Your task to perform on an android device: uninstall "Spotify: Music and Podcasts" Image 0: 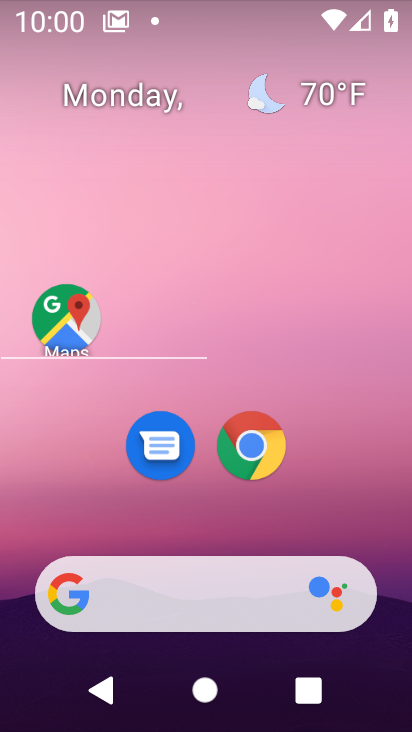
Step 0: press home button
Your task to perform on an android device: uninstall "Spotify: Music and Podcasts" Image 1: 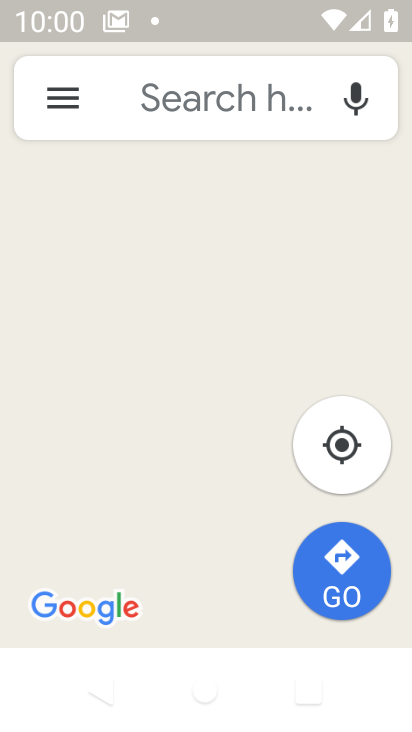
Step 1: drag from (251, 472) to (294, 53)
Your task to perform on an android device: uninstall "Spotify: Music and Podcasts" Image 2: 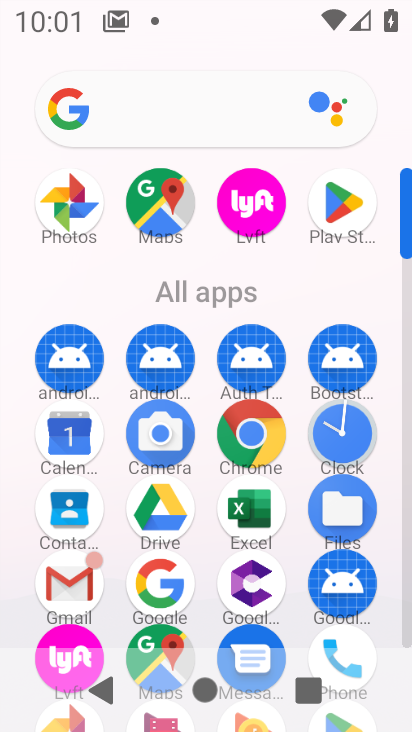
Step 2: click (332, 233)
Your task to perform on an android device: uninstall "Spotify: Music and Podcasts" Image 3: 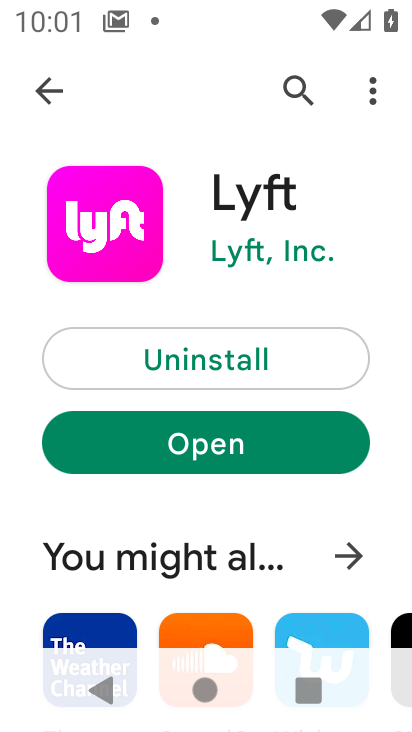
Step 3: click (41, 93)
Your task to perform on an android device: uninstall "Spotify: Music and Podcasts" Image 4: 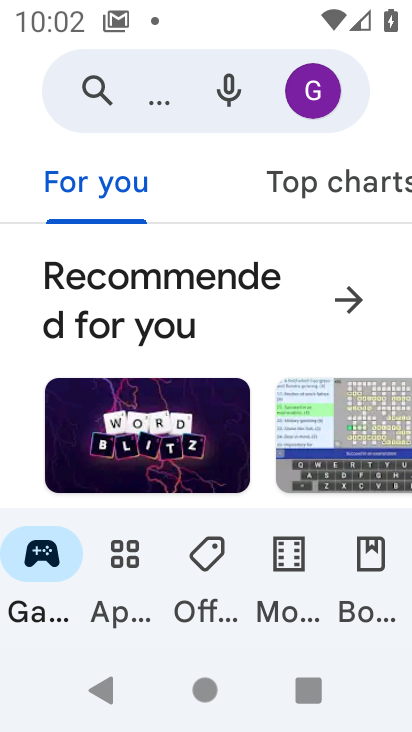
Step 4: click (116, 103)
Your task to perform on an android device: uninstall "Spotify: Music and Podcasts" Image 5: 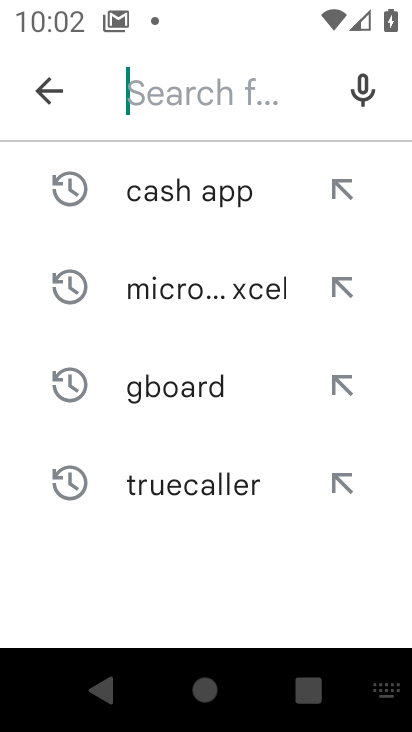
Step 5: type "Spotify: Music and Podcasts"
Your task to perform on an android device: uninstall "Spotify: Music and Podcasts" Image 6: 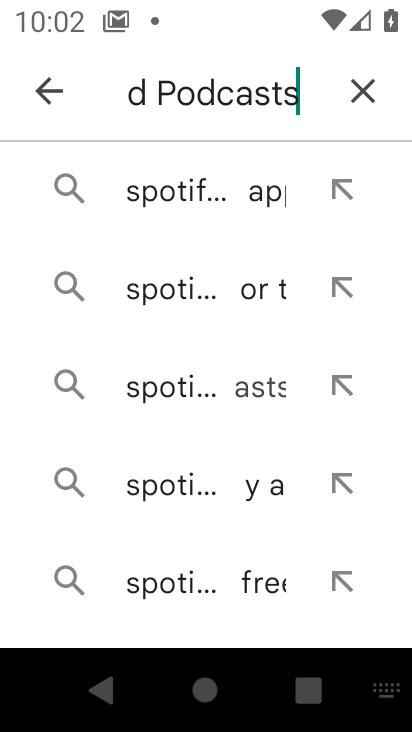
Step 6: click (229, 207)
Your task to perform on an android device: uninstall "Spotify: Music and Podcasts" Image 7: 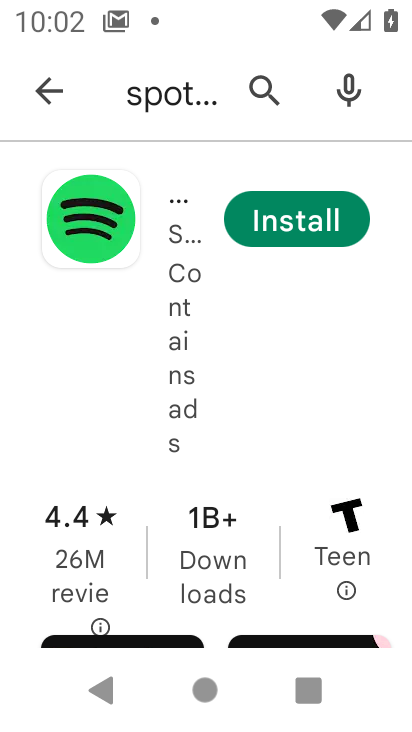
Step 7: task complete